Your task to perform on an android device: delete a single message in the gmail app Image 0: 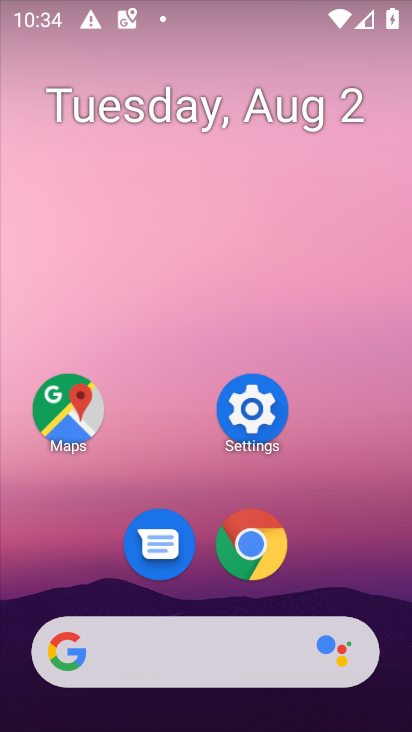
Step 0: press home button
Your task to perform on an android device: delete a single message in the gmail app Image 1: 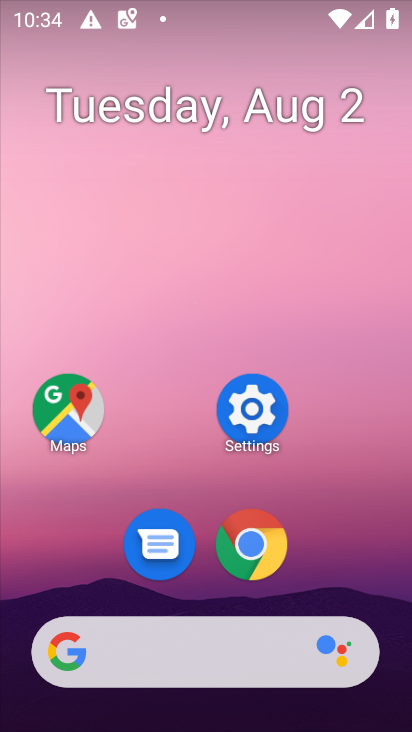
Step 1: drag from (163, 642) to (307, 79)
Your task to perform on an android device: delete a single message in the gmail app Image 2: 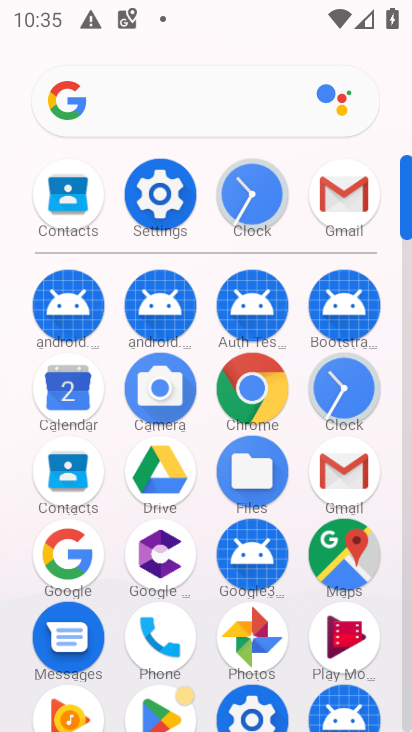
Step 2: click (344, 202)
Your task to perform on an android device: delete a single message in the gmail app Image 3: 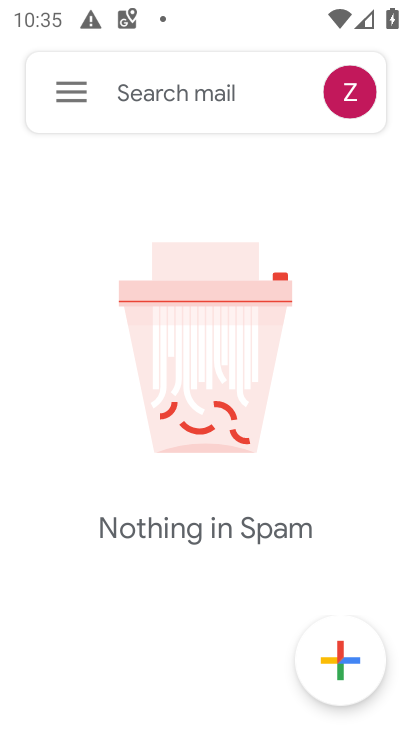
Step 3: click (79, 90)
Your task to perform on an android device: delete a single message in the gmail app Image 4: 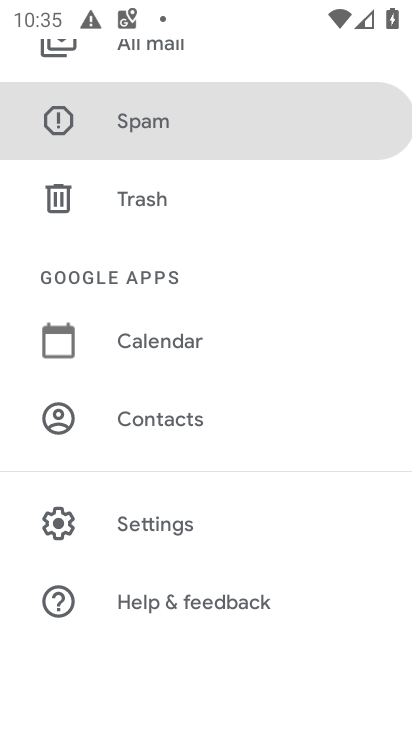
Step 4: drag from (257, 191) to (188, 577)
Your task to perform on an android device: delete a single message in the gmail app Image 5: 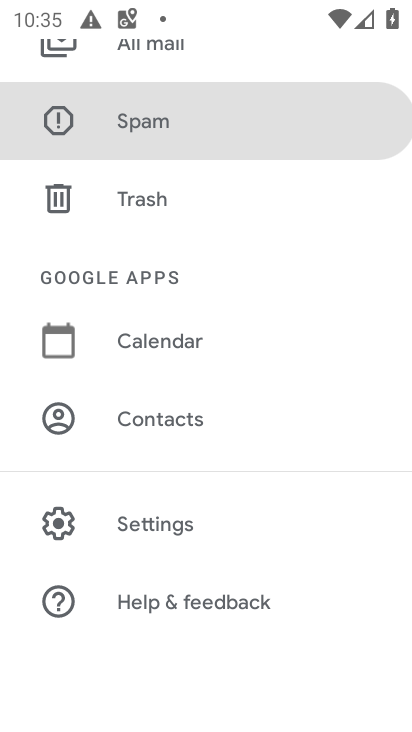
Step 5: drag from (117, 176) to (102, 612)
Your task to perform on an android device: delete a single message in the gmail app Image 6: 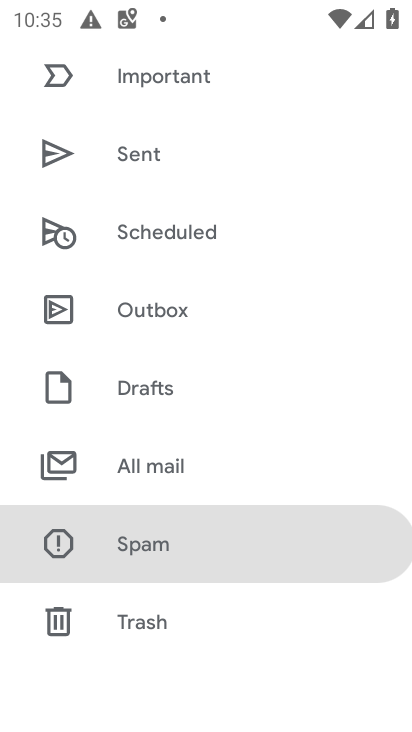
Step 6: click (145, 466)
Your task to perform on an android device: delete a single message in the gmail app Image 7: 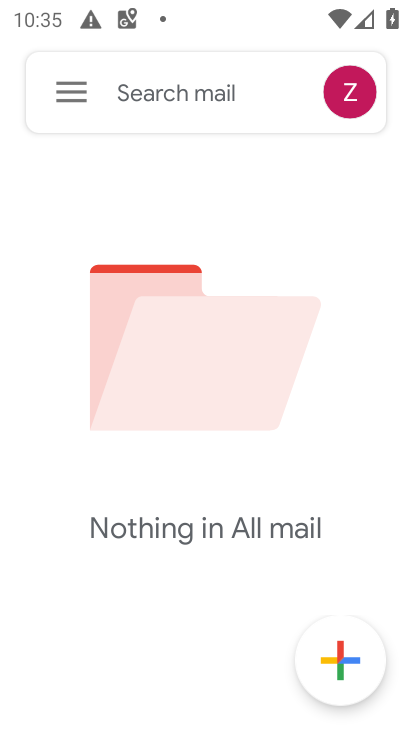
Step 7: task complete